Your task to perform on an android device: turn notification dots on Image 0: 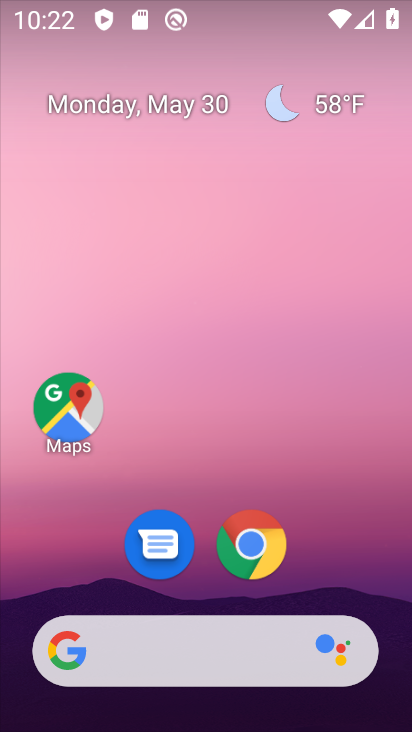
Step 0: drag from (356, 595) to (287, 23)
Your task to perform on an android device: turn notification dots on Image 1: 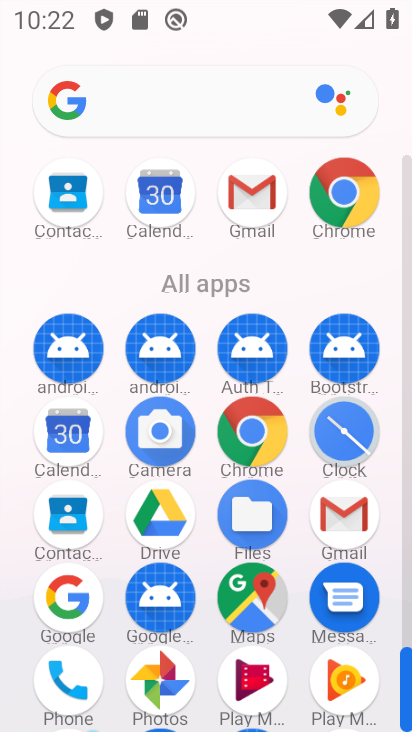
Step 1: drag from (403, 685) to (78, 731)
Your task to perform on an android device: turn notification dots on Image 2: 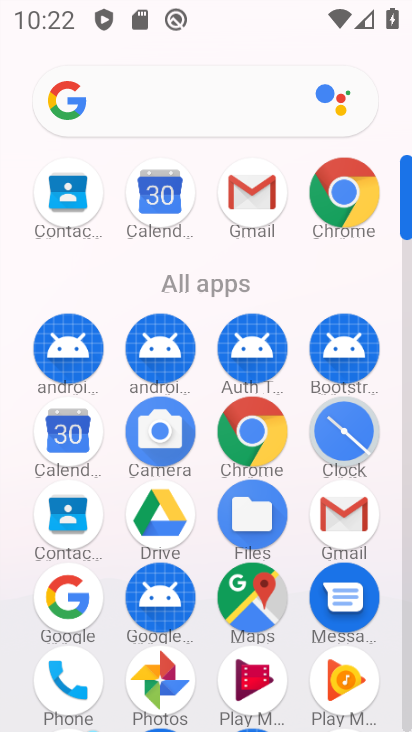
Step 2: click (407, 729)
Your task to perform on an android device: turn notification dots on Image 3: 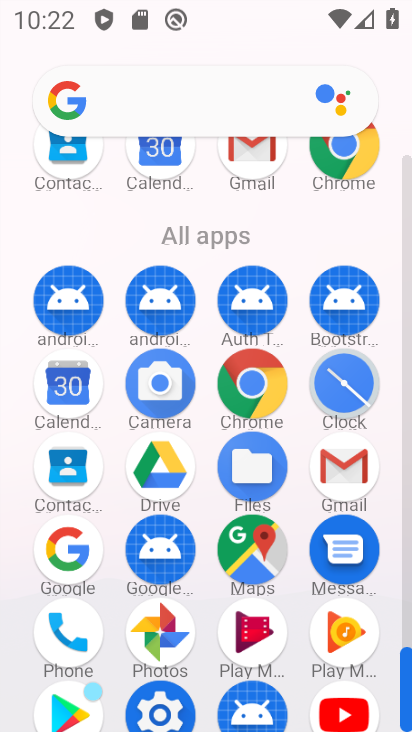
Step 3: click (155, 717)
Your task to perform on an android device: turn notification dots on Image 4: 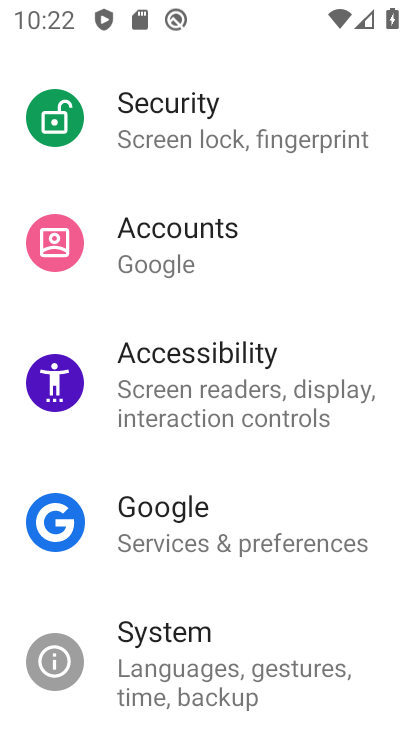
Step 4: task complete